Your task to perform on an android device: What's on my calendar tomorrow? Image 0: 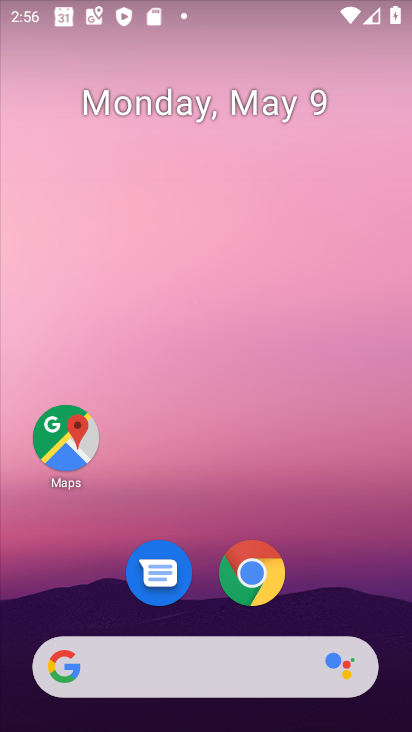
Step 0: drag from (179, 640) to (205, 157)
Your task to perform on an android device: What's on my calendar tomorrow? Image 1: 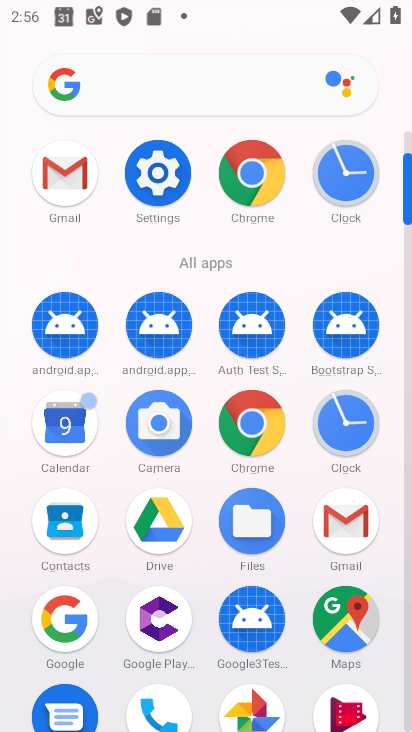
Step 1: click (160, 172)
Your task to perform on an android device: What's on my calendar tomorrow? Image 2: 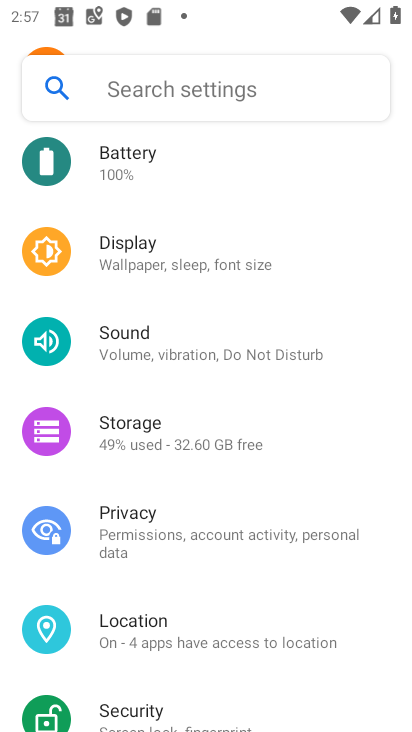
Step 2: press home button
Your task to perform on an android device: What's on my calendar tomorrow? Image 3: 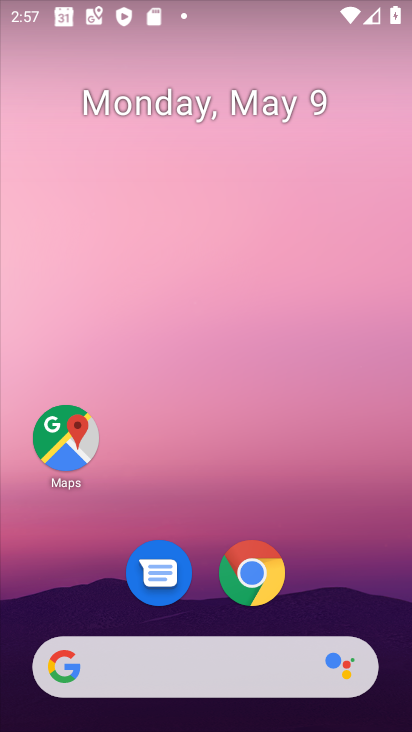
Step 3: drag from (218, 636) to (184, 165)
Your task to perform on an android device: What's on my calendar tomorrow? Image 4: 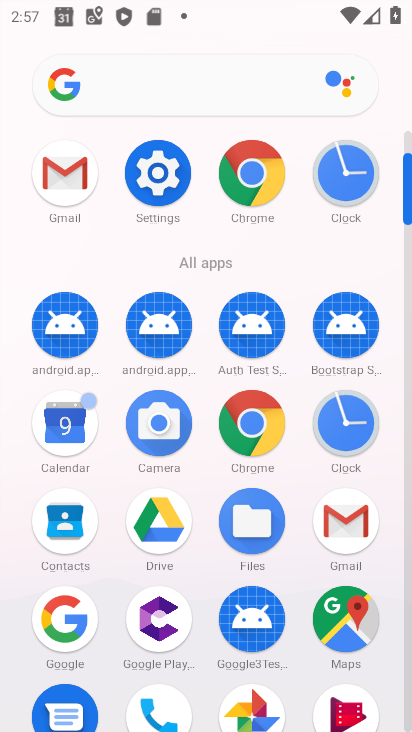
Step 4: click (76, 438)
Your task to perform on an android device: What's on my calendar tomorrow? Image 5: 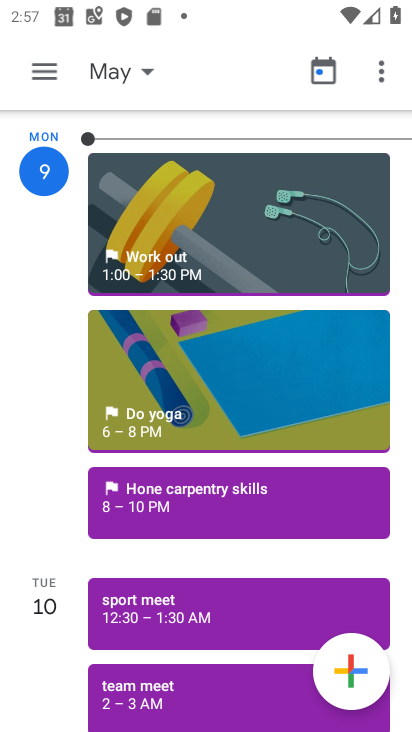
Step 5: drag from (116, 664) to (160, 325)
Your task to perform on an android device: What's on my calendar tomorrow? Image 6: 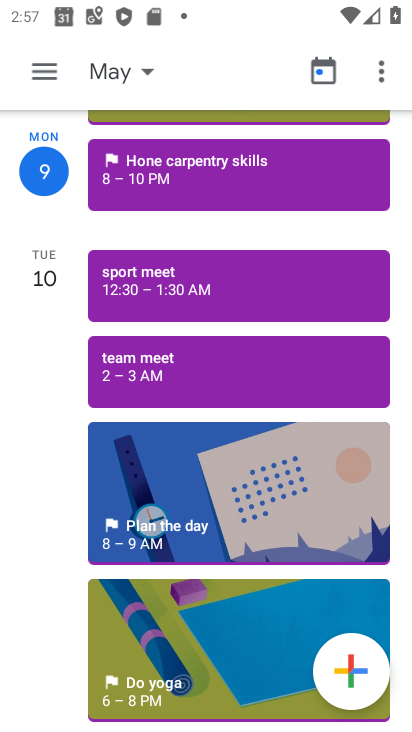
Step 6: click (128, 302)
Your task to perform on an android device: What's on my calendar tomorrow? Image 7: 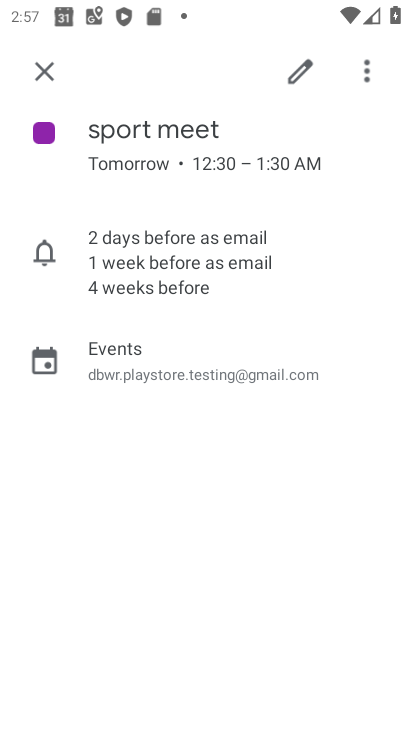
Step 7: task complete